Your task to perform on an android device: Open notification settings Image 0: 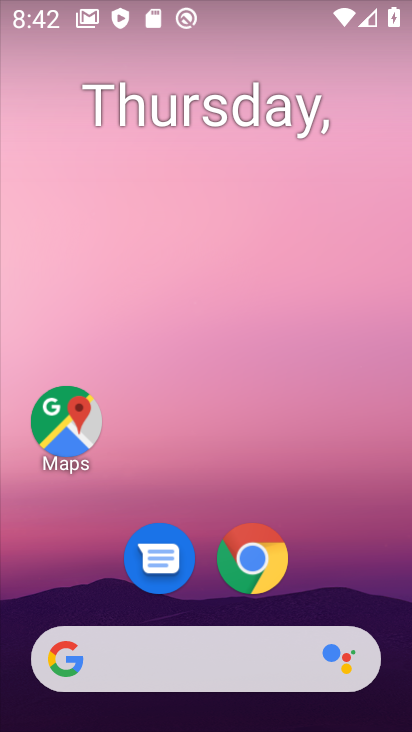
Step 0: drag from (379, 606) to (301, 146)
Your task to perform on an android device: Open notification settings Image 1: 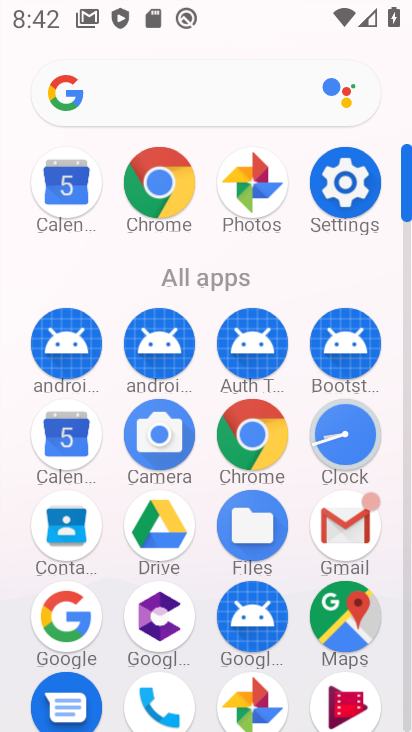
Step 1: click (345, 181)
Your task to perform on an android device: Open notification settings Image 2: 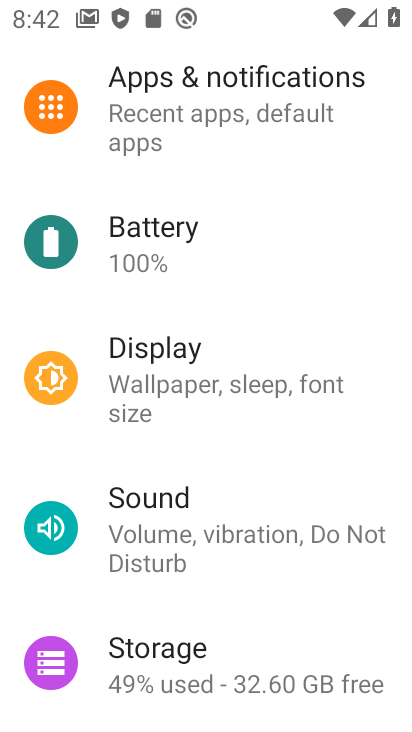
Step 2: drag from (334, 148) to (280, 474)
Your task to perform on an android device: Open notification settings Image 3: 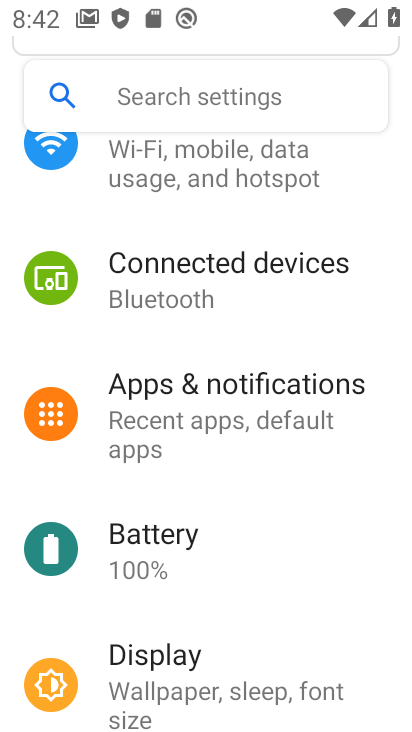
Step 3: click (129, 389)
Your task to perform on an android device: Open notification settings Image 4: 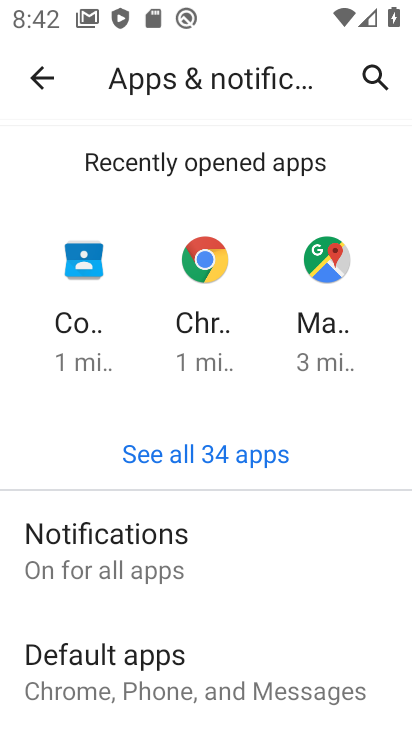
Step 4: click (80, 539)
Your task to perform on an android device: Open notification settings Image 5: 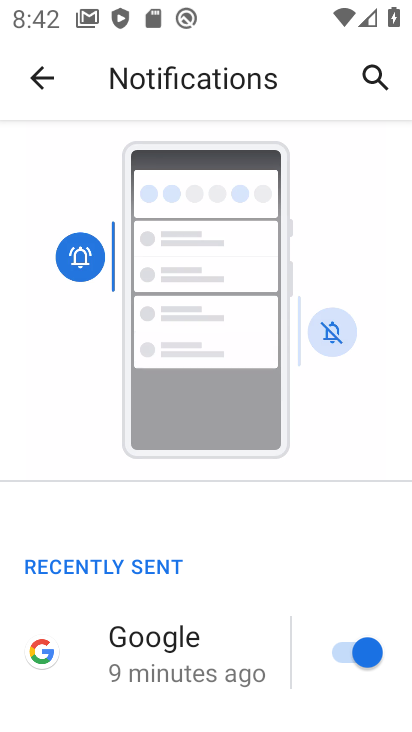
Step 5: drag from (290, 654) to (239, 200)
Your task to perform on an android device: Open notification settings Image 6: 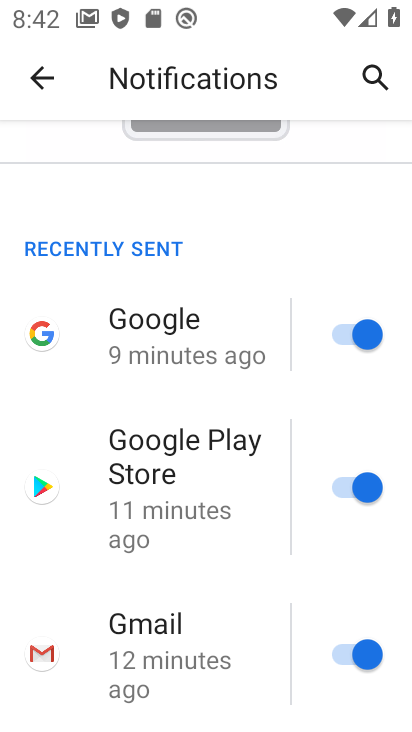
Step 6: drag from (289, 583) to (275, 83)
Your task to perform on an android device: Open notification settings Image 7: 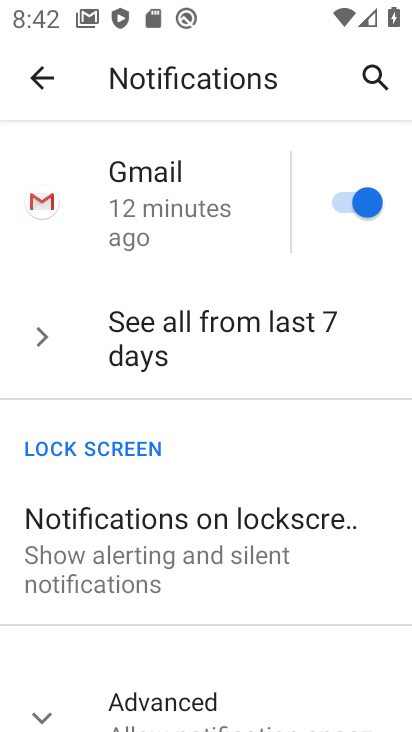
Step 7: drag from (261, 557) to (236, 175)
Your task to perform on an android device: Open notification settings Image 8: 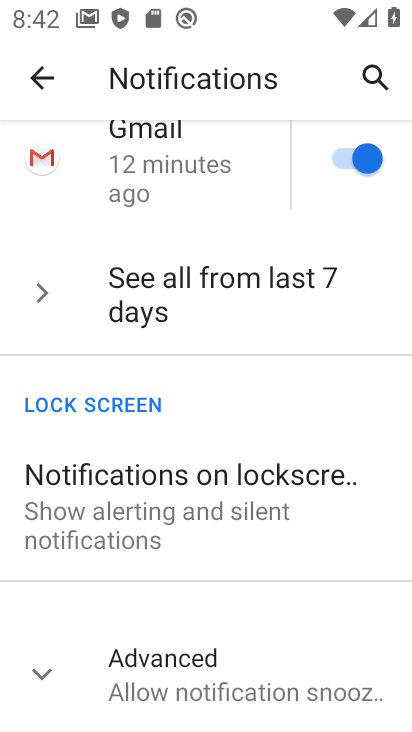
Step 8: click (36, 675)
Your task to perform on an android device: Open notification settings Image 9: 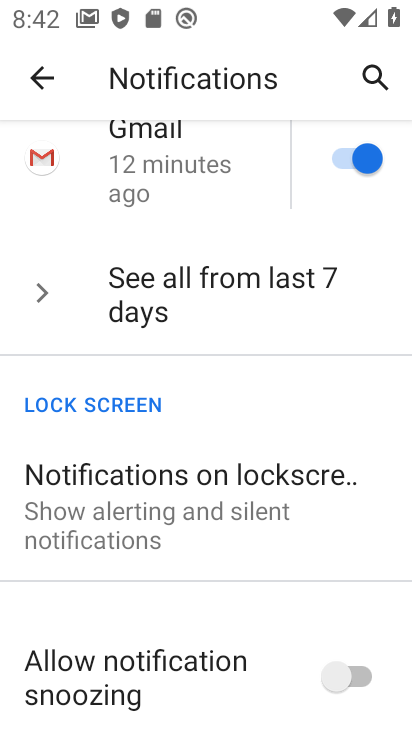
Step 9: task complete